Your task to perform on an android device: open wifi settings Image 0: 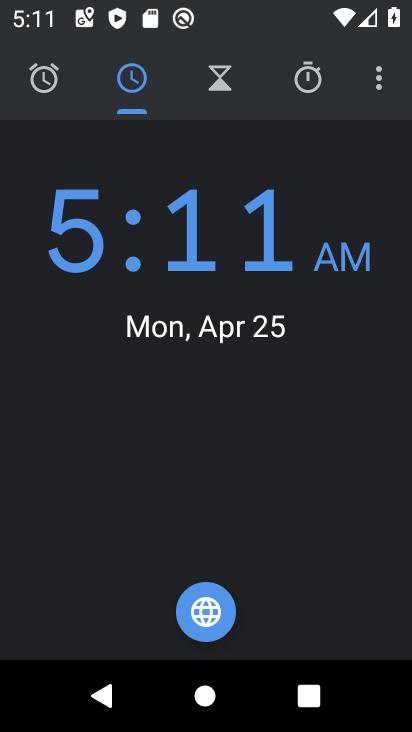
Step 0: press home button
Your task to perform on an android device: open wifi settings Image 1: 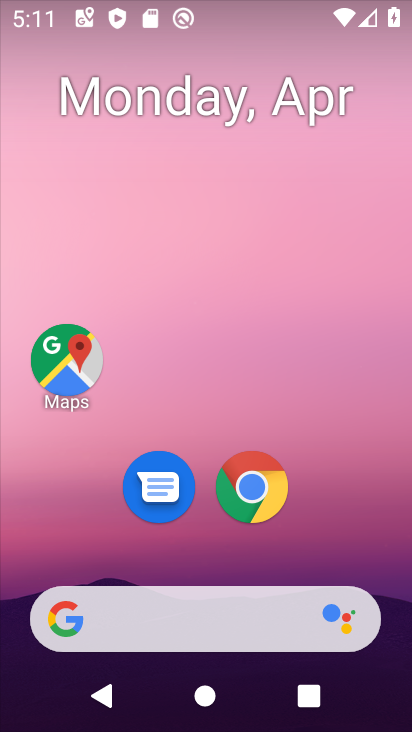
Step 1: drag from (386, 532) to (342, 69)
Your task to perform on an android device: open wifi settings Image 2: 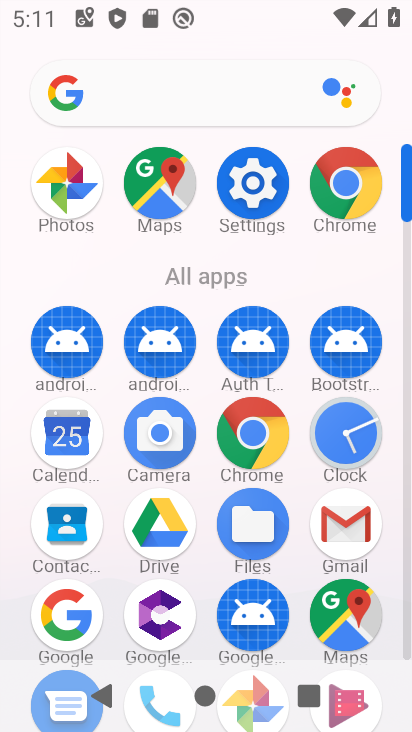
Step 2: click (237, 169)
Your task to perform on an android device: open wifi settings Image 3: 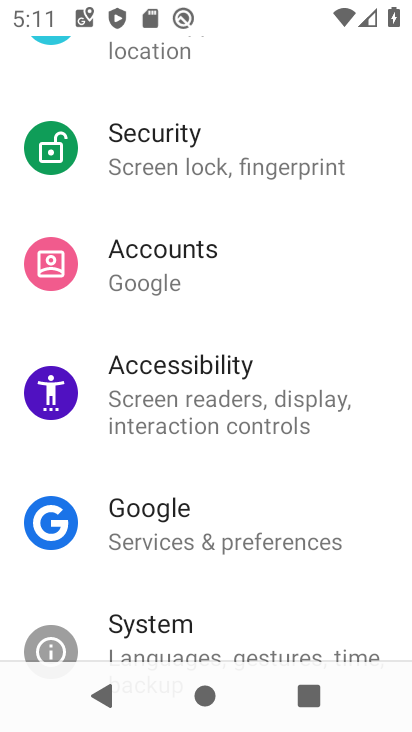
Step 3: drag from (265, 111) to (399, 610)
Your task to perform on an android device: open wifi settings Image 4: 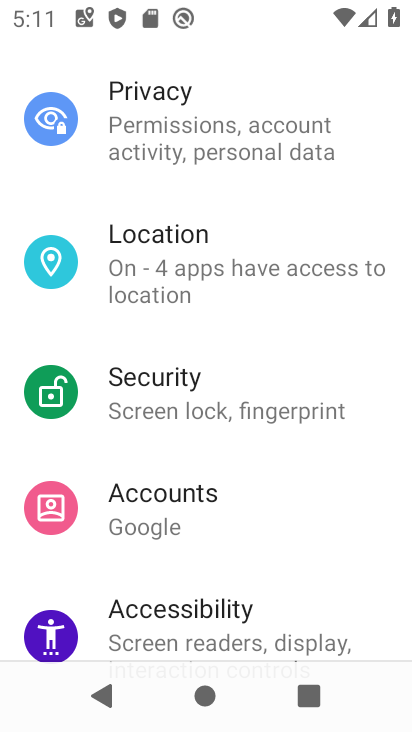
Step 4: drag from (266, 173) to (289, 726)
Your task to perform on an android device: open wifi settings Image 5: 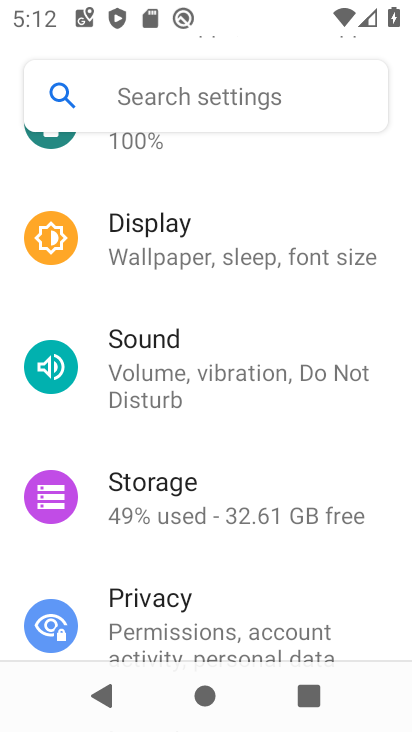
Step 5: drag from (296, 173) to (268, 585)
Your task to perform on an android device: open wifi settings Image 6: 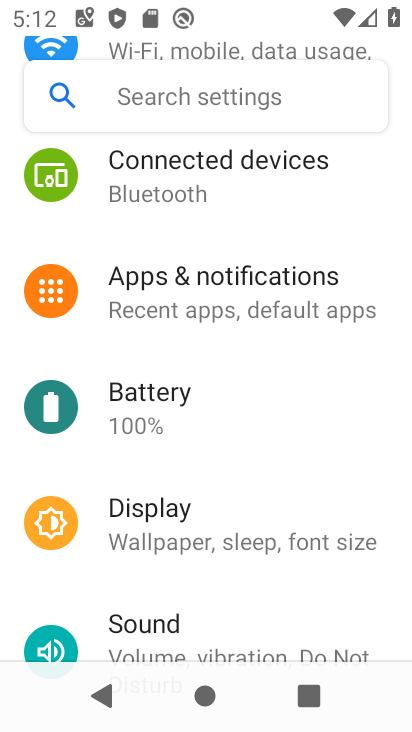
Step 6: drag from (273, 242) to (307, 610)
Your task to perform on an android device: open wifi settings Image 7: 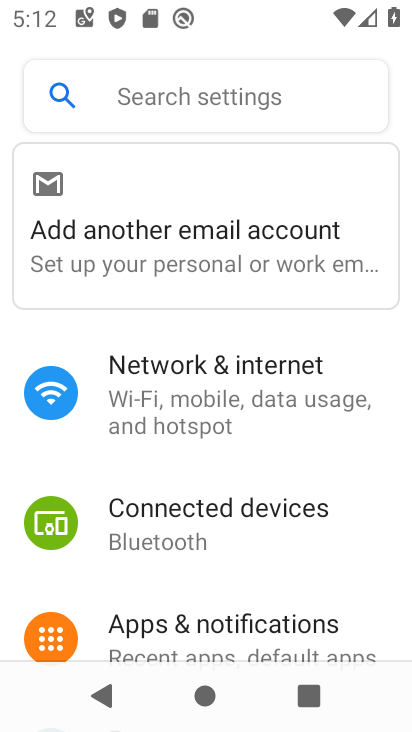
Step 7: click (271, 395)
Your task to perform on an android device: open wifi settings Image 8: 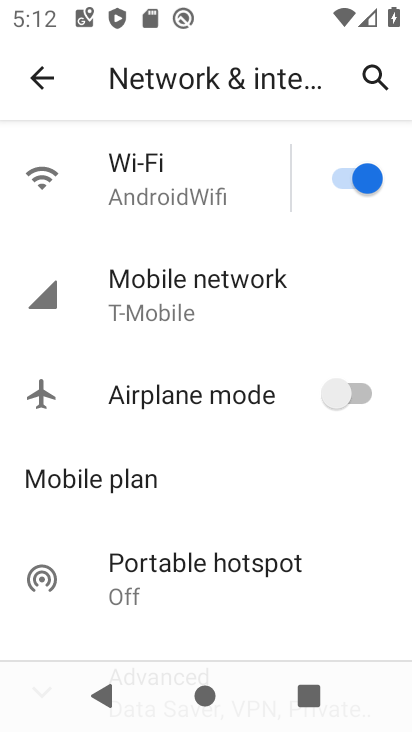
Step 8: click (139, 143)
Your task to perform on an android device: open wifi settings Image 9: 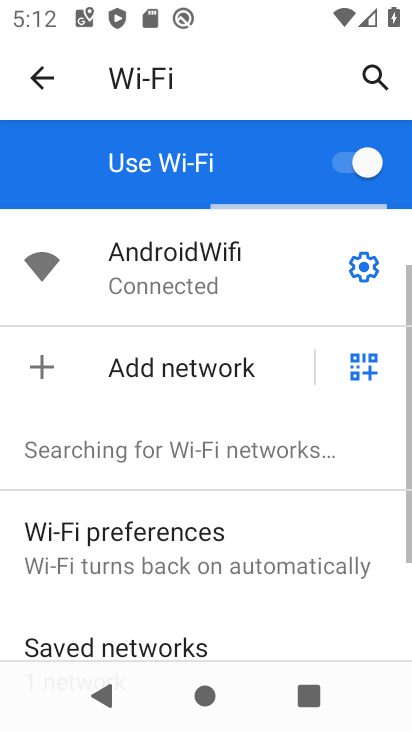
Step 9: task complete